Your task to perform on an android device: Search for "duracell triple a" on ebay.com, select the first entry, add it to the cart, then select checkout. Image 0: 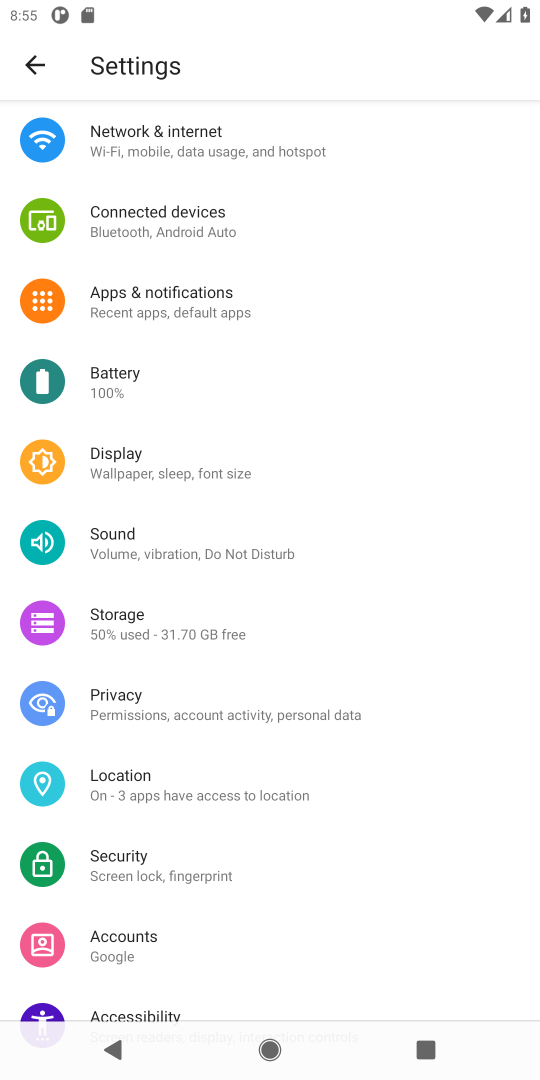
Step 0: press home button
Your task to perform on an android device: Search for "duracell triple a" on ebay.com, select the first entry, add it to the cart, then select checkout. Image 1: 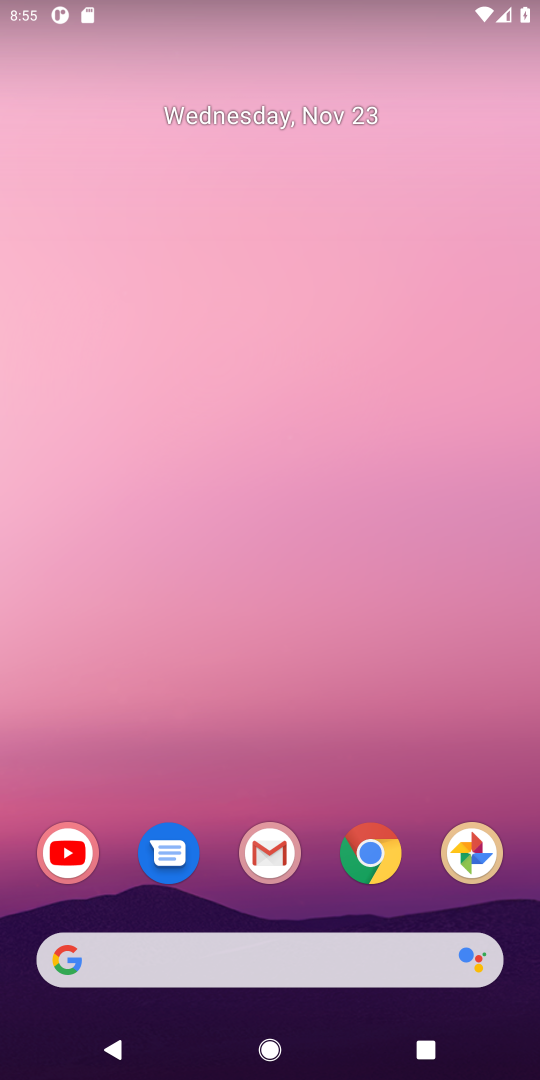
Step 1: click (370, 851)
Your task to perform on an android device: Search for "duracell triple a" on ebay.com, select the first entry, add it to the cart, then select checkout. Image 2: 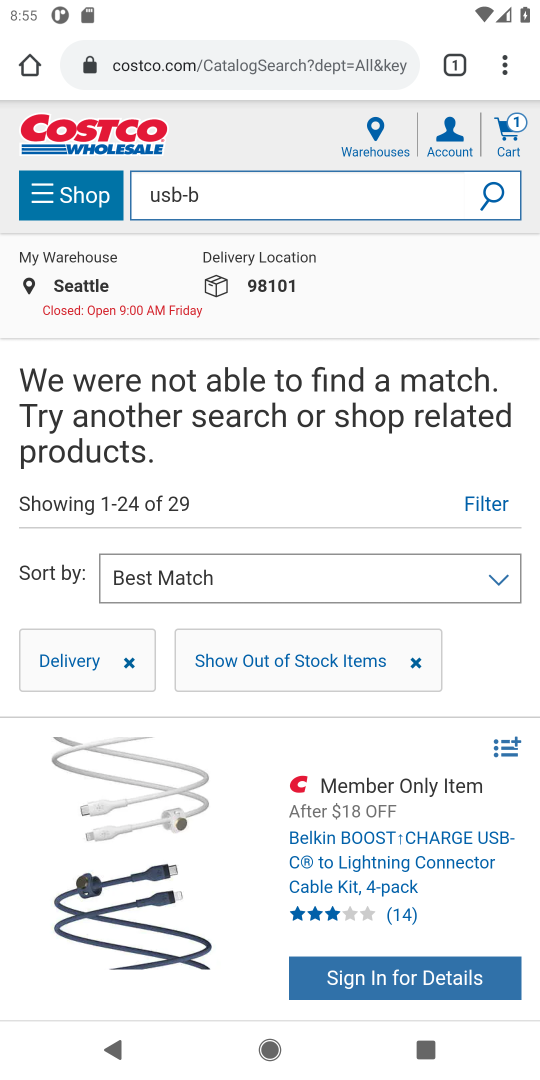
Step 2: click (205, 64)
Your task to perform on an android device: Search for "duracell triple a" on ebay.com, select the first entry, add it to the cart, then select checkout. Image 3: 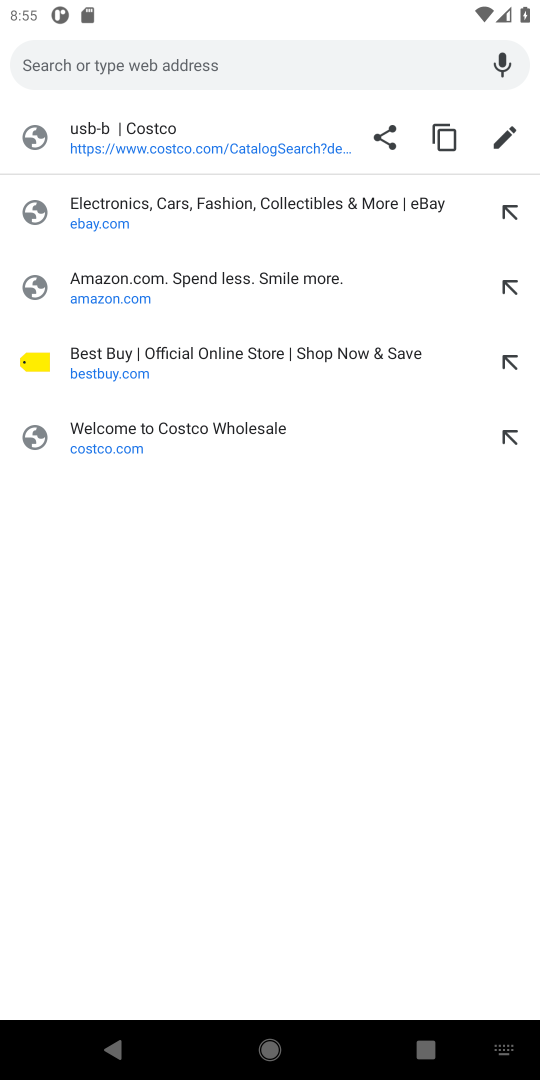
Step 3: click (84, 229)
Your task to perform on an android device: Search for "duracell triple a" on ebay.com, select the first entry, add it to the cart, then select checkout. Image 4: 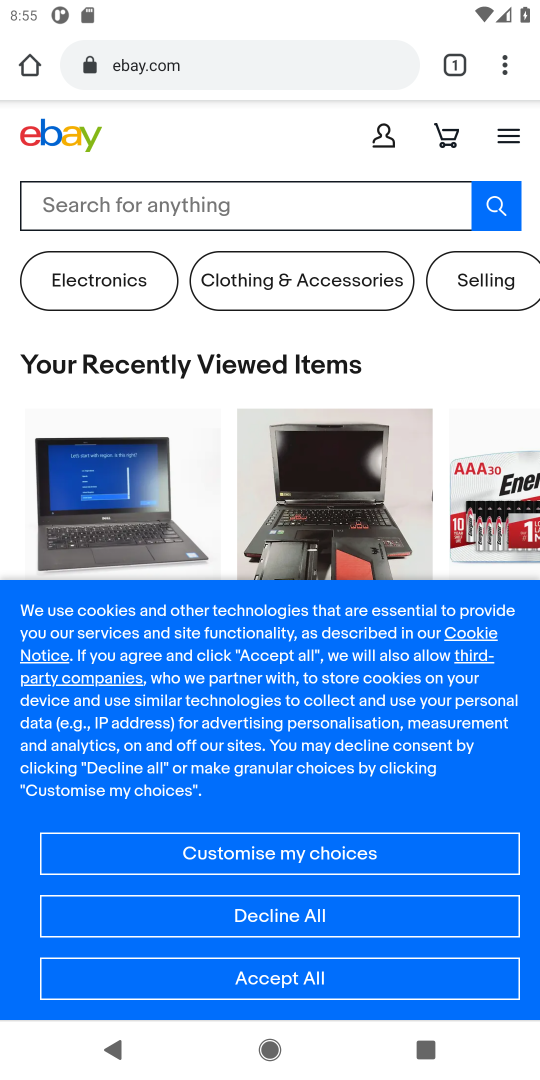
Step 4: click (70, 210)
Your task to perform on an android device: Search for "duracell triple a" on ebay.com, select the first entry, add it to the cart, then select checkout. Image 5: 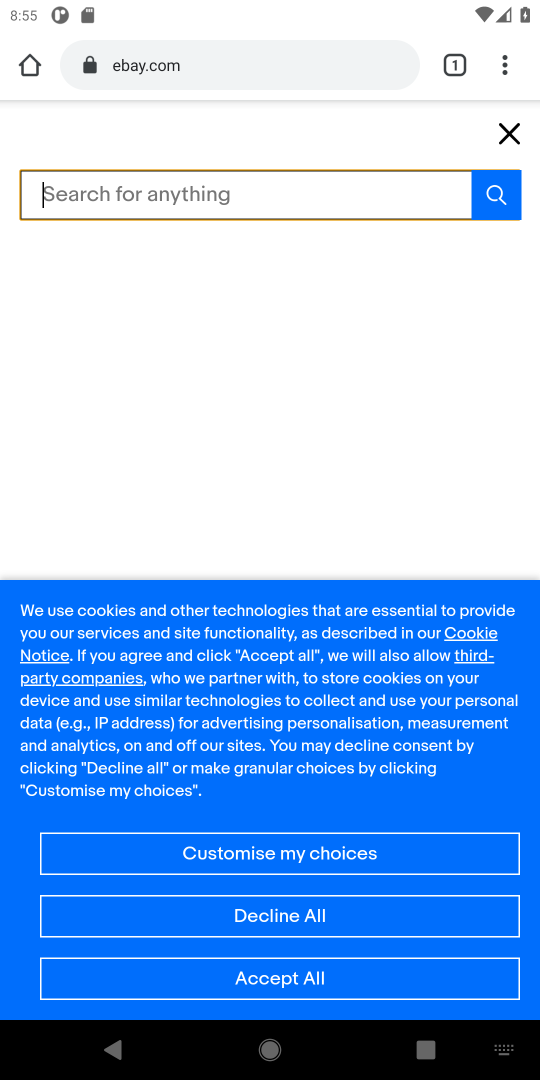
Step 5: type "duracell triple a"
Your task to perform on an android device: Search for "duracell triple a" on ebay.com, select the first entry, add it to the cart, then select checkout. Image 6: 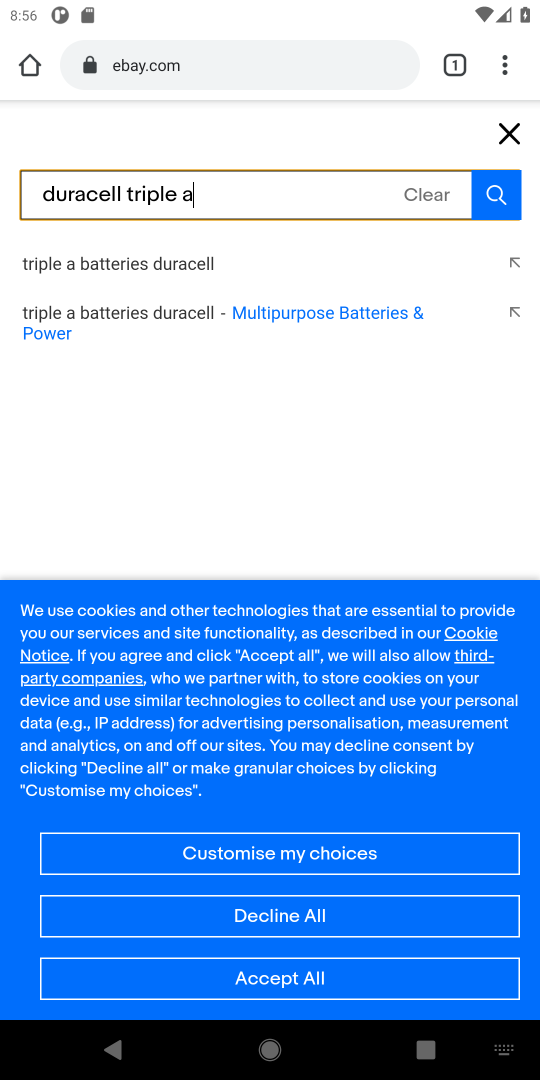
Step 6: click (113, 265)
Your task to perform on an android device: Search for "duracell triple a" on ebay.com, select the first entry, add it to the cart, then select checkout. Image 7: 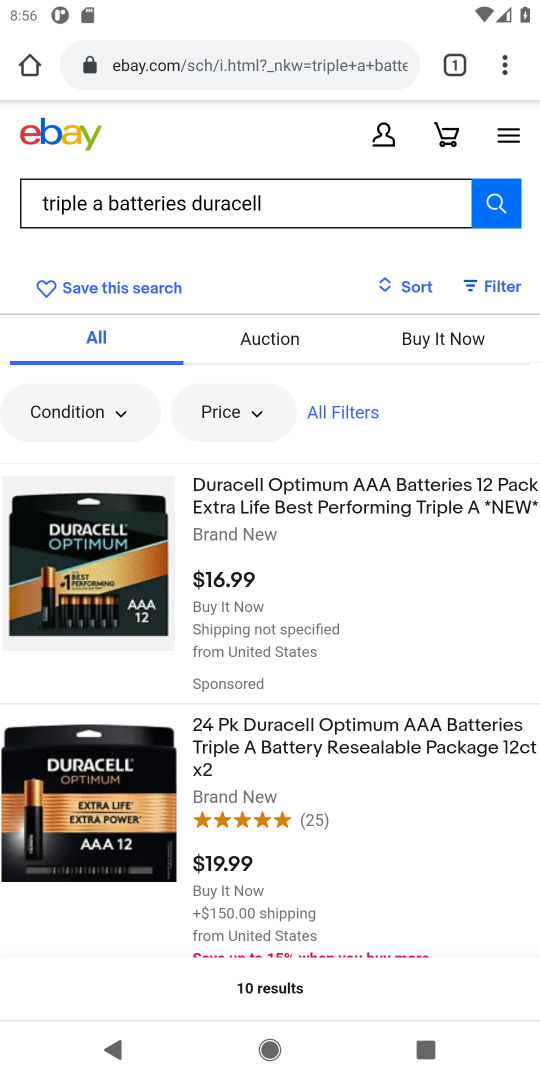
Step 7: click (75, 576)
Your task to perform on an android device: Search for "duracell triple a" on ebay.com, select the first entry, add it to the cart, then select checkout. Image 8: 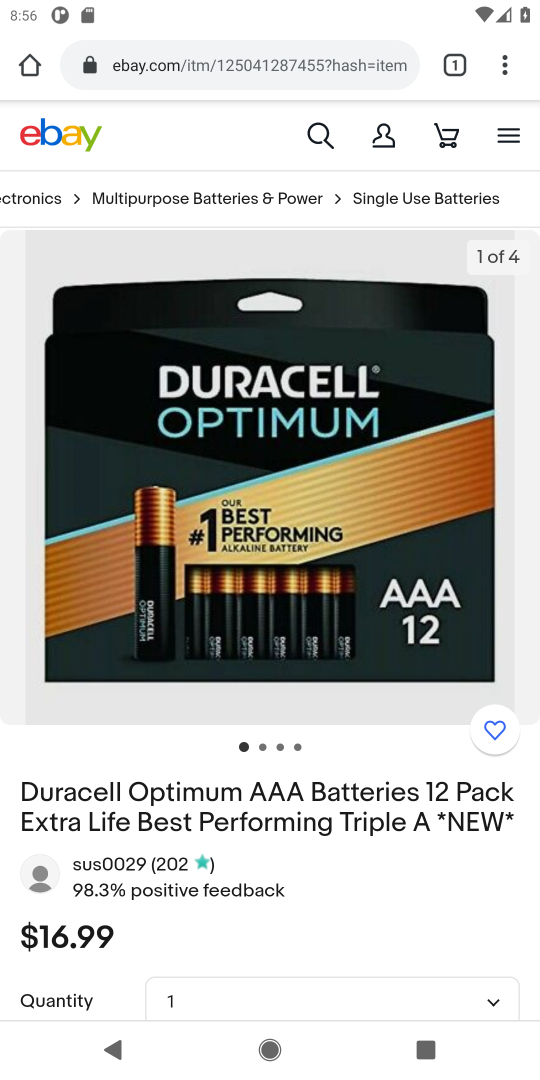
Step 8: drag from (251, 795) to (241, 403)
Your task to perform on an android device: Search for "duracell triple a" on ebay.com, select the first entry, add it to the cart, then select checkout. Image 9: 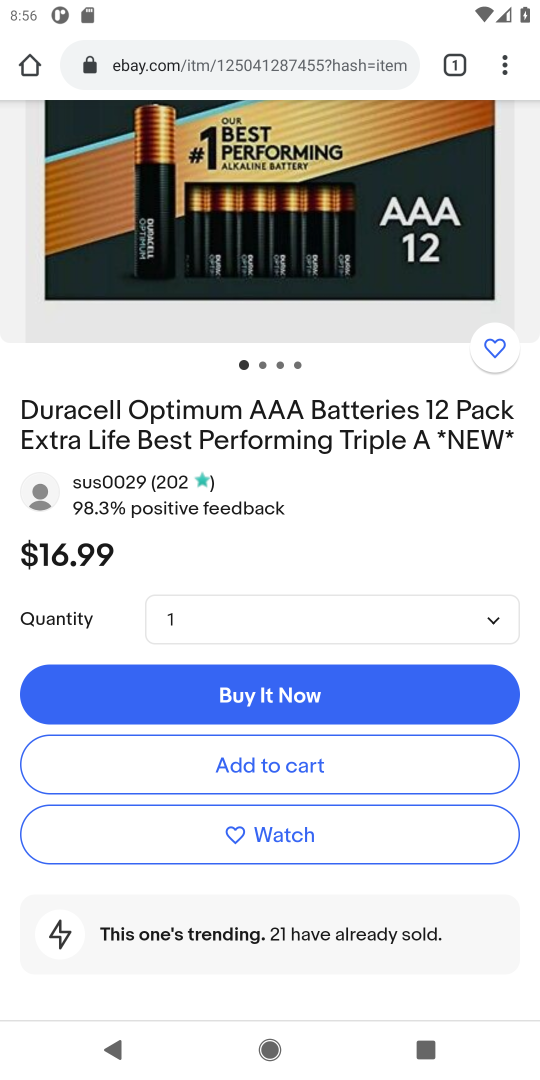
Step 9: click (210, 757)
Your task to perform on an android device: Search for "duracell triple a" on ebay.com, select the first entry, add it to the cart, then select checkout. Image 10: 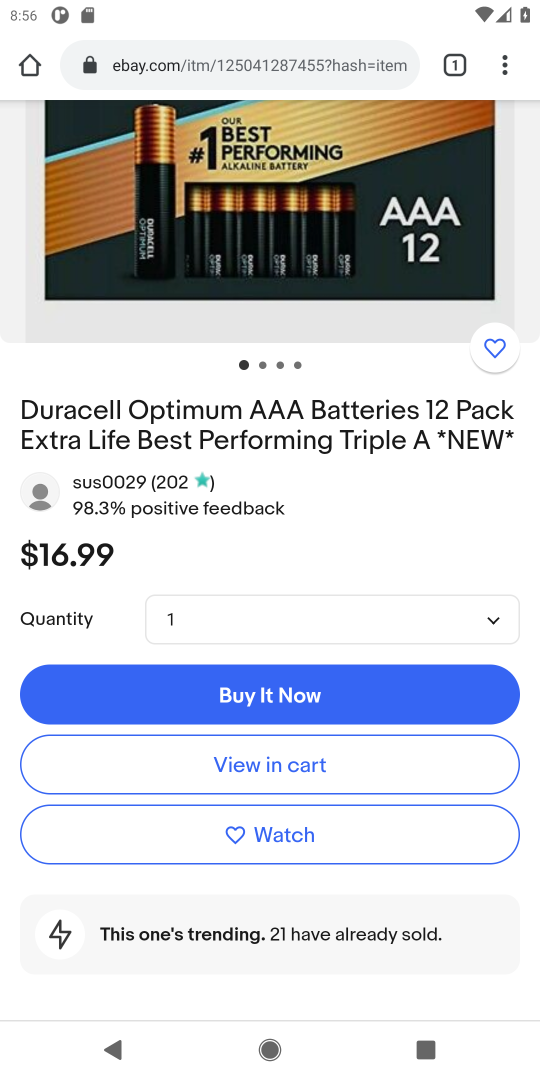
Step 10: click (214, 763)
Your task to perform on an android device: Search for "duracell triple a" on ebay.com, select the first entry, add it to the cart, then select checkout. Image 11: 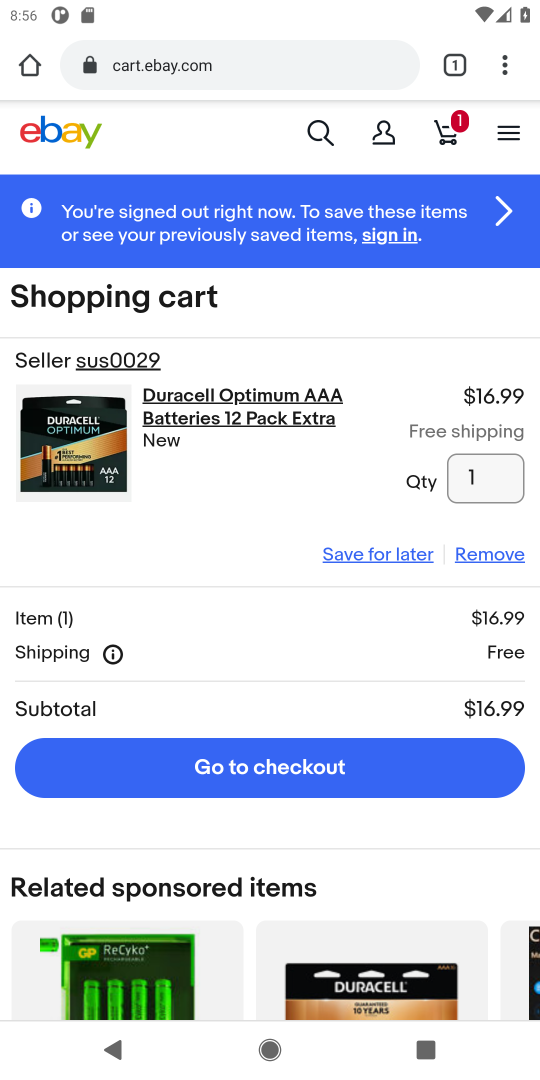
Step 11: click (214, 764)
Your task to perform on an android device: Search for "duracell triple a" on ebay.com, select the first entry, add it to the cart, then select checkout. Image 12: 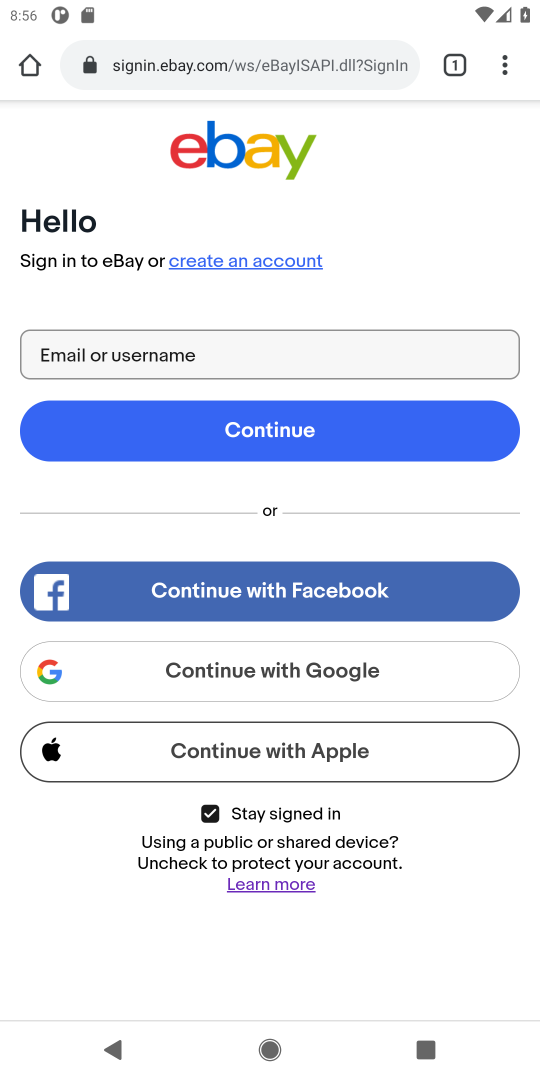
Step 12: task complete